Your task to perform on an android device: uninstall "Etsy: Buy & Sell Unique Items" Image 0: 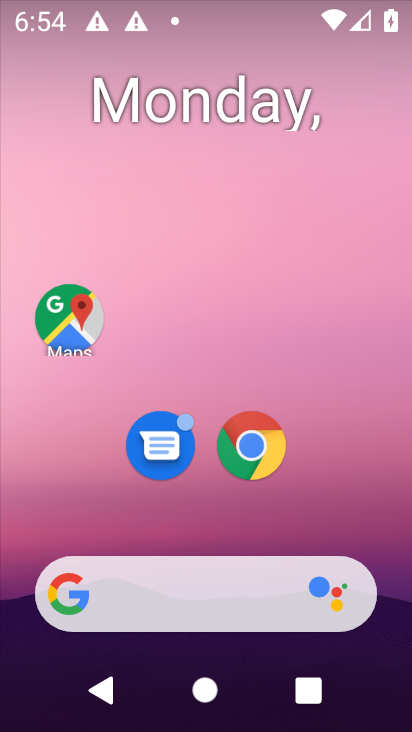
Step 0: drag from (406, 592) to (278, 130)
Your task to perform on an android device: uninstall "Etsy: Buy & Sell Unique Items" Image 1: 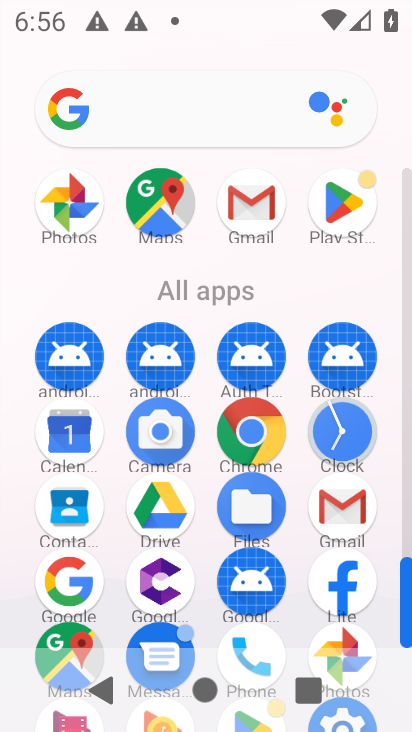
Step 1: click (366, 209)
Your task to perform on an android device: uninstall "Etsy: Buy & Sell Unique Items" Image 2: 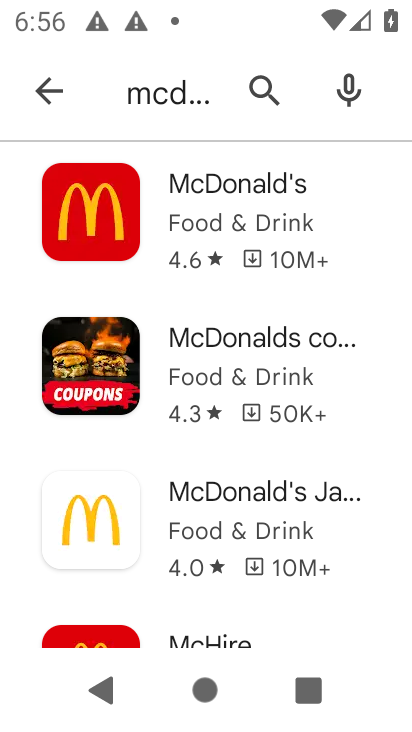
Step 2: press back button
Your task to perform on an android device: uninstall "Etsy: Buy & Sell Unique Items" Image 3: 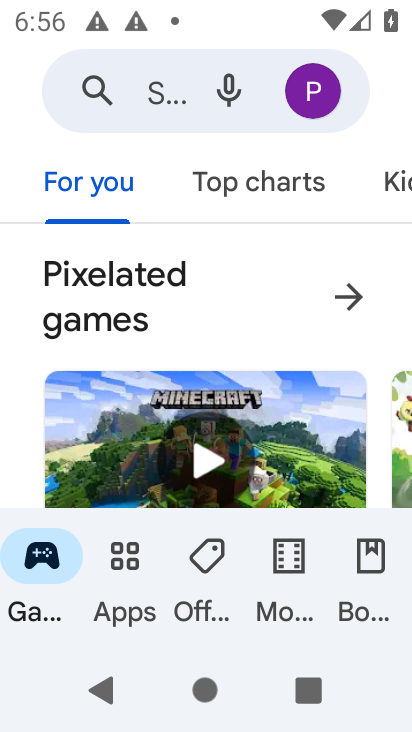
Step 3: click (144, 93)
Your task to perform on an android device: uninstall "Etsy: Buy & Sell Unique Items" Image 4: 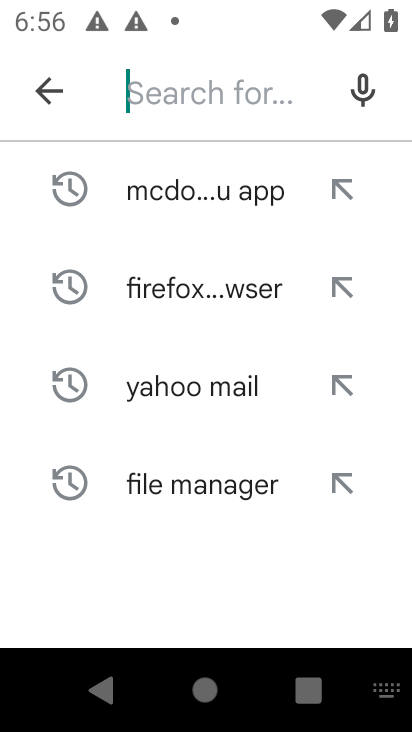
Step 4: type "Etsy: Buy & Sell Unique Items"
Your task to perform on an android device: uninstall "Etsy: Buy & Sell Unique Items" Image 5: 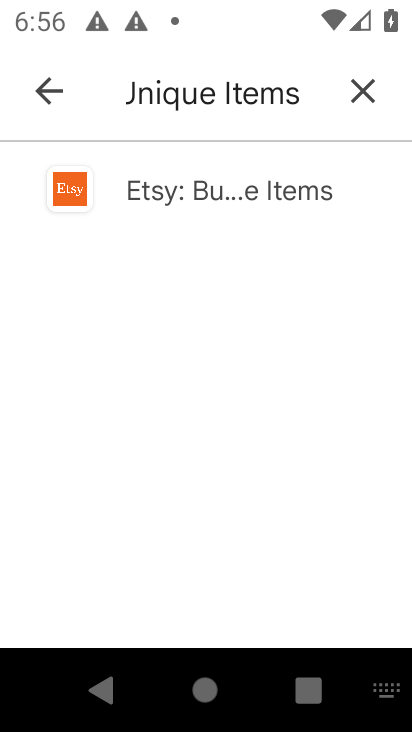
Step 5: click (186, 199)
Your task to perform on an android device: uninstall "Etsy: Buy & Sell Unique Items" Image 6: 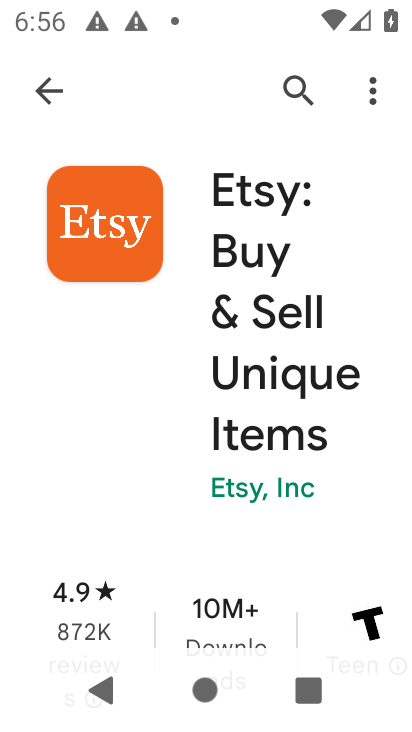
Step 6: task complete